Your task to perform on an android device: Go to wifi settings Image 0: 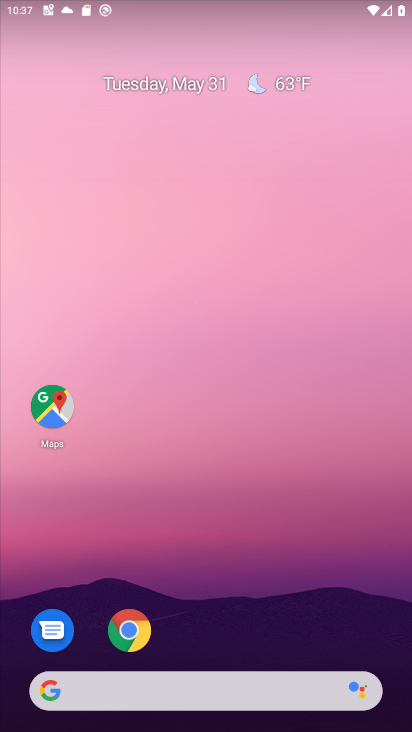
Step 0: drag from (245, 598) to (251, 185)
Your task to perform on an android device: Go to wifi settings Image 1: 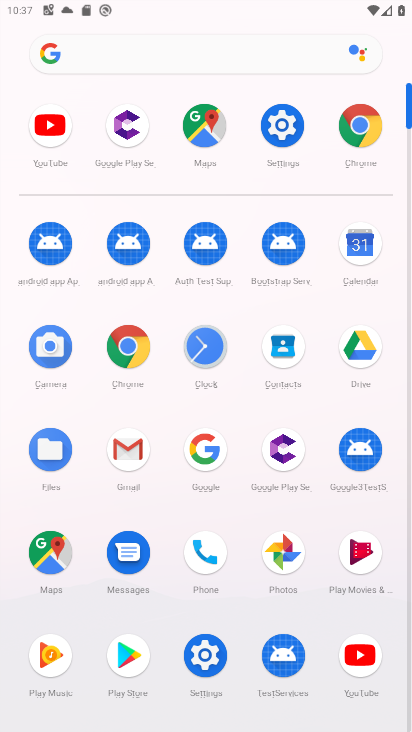
Step 1: click (290, 131)
Your task to perform on an android device: Go to wifi settings Image 2: 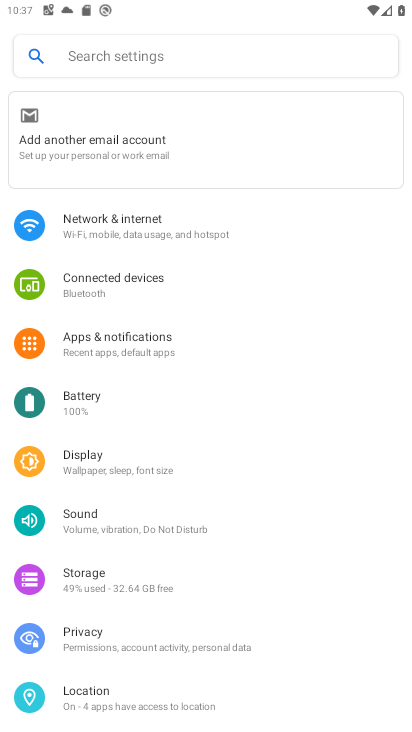
Step 2: click (97, 233)
Your task to perform on an android device: Go to wifi settings Image 3: 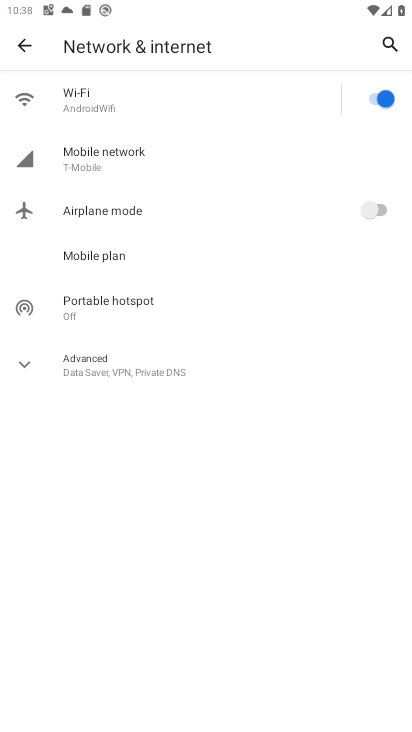
Step 3: click (139, 100)
Your task to perform on an android device: Go to wifi settings Image 4: 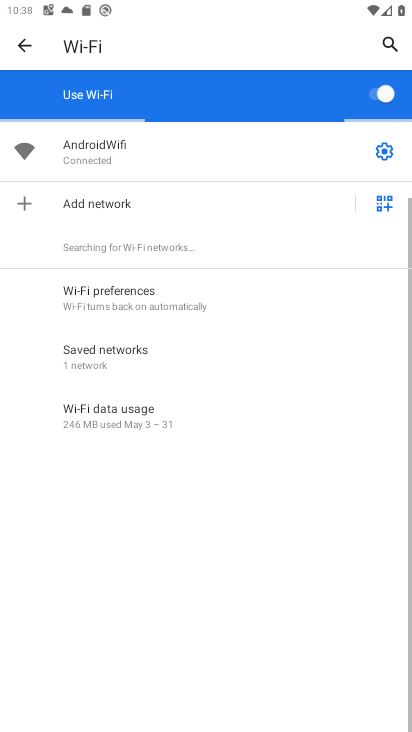
Step 4: click (377, 148)
Your task to perform on an android device: Go to wifi settings Image 5: 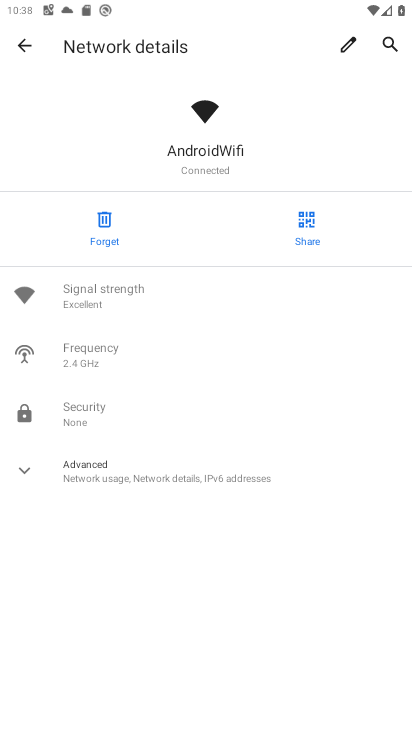
Step 5: task complete